Your task to perform on an android device: Open location settings Image 0: 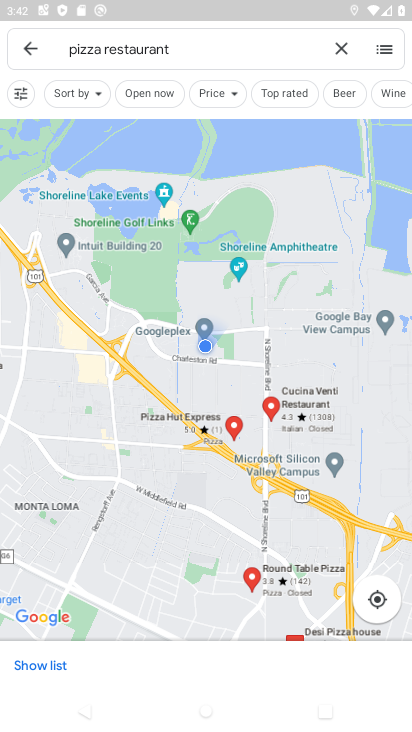
Step 0: press home button
Your task to perform on an android device: Open location settings Image 1: 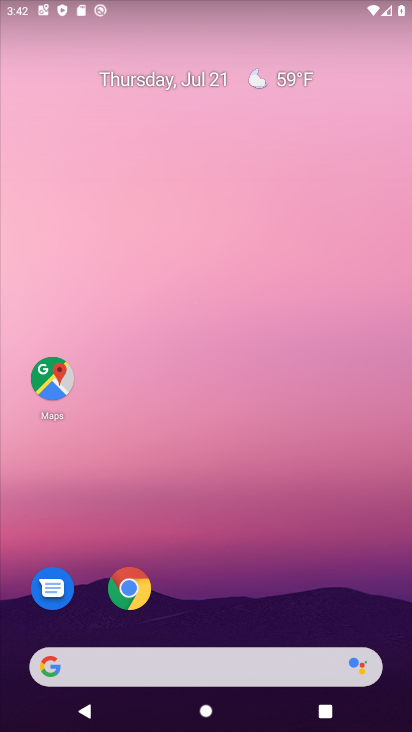
Step 1: drag from (224, 622) to (248, 349)
Your task to perform on an android device: Open location settings Image 2: 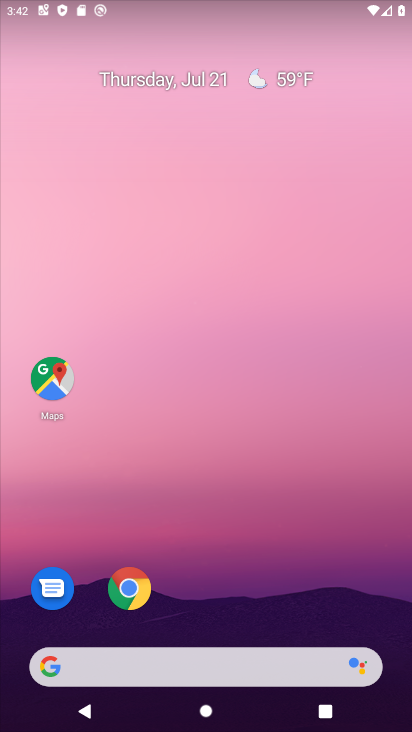
Step 2: drag from (240, 624) to (243, 121)
Your task to perform on an android device: Open location settings Image 3: 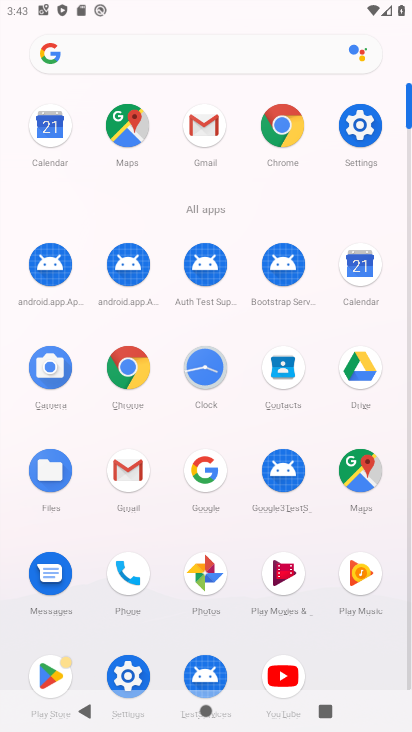
Step 3: click (134, 671)
Your task to perform on an android device: Open location settings Image 4: 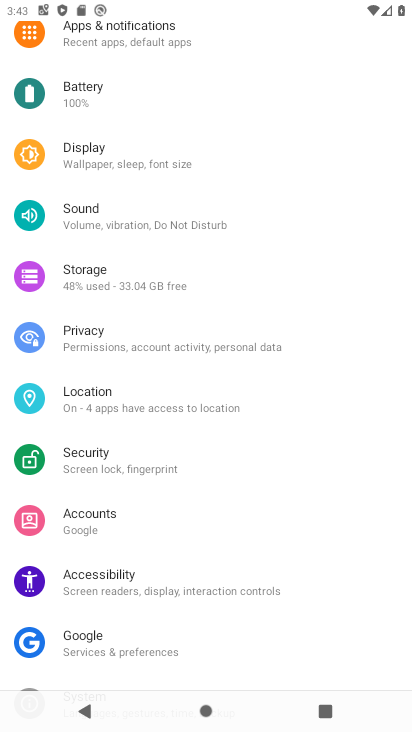
Step 4: click (120, 397)
Your task to perform on an android device: Open location settings Image 5: 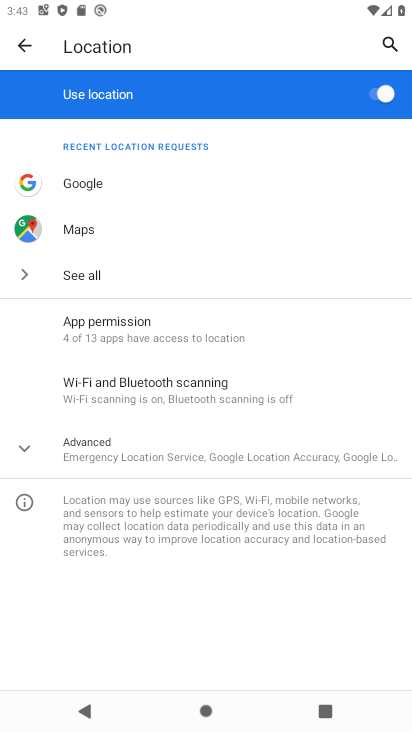
Step 5: task complete